Your task to perform on an android device: Is it going to rain tomorrow? Image 0: 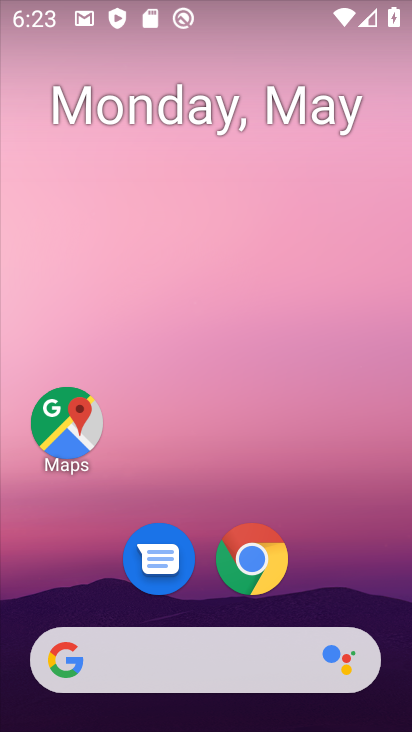
Step 0: drag from (397, 632) to (305, 46)
Your task to perform on an android device: Is it going to rain tomorrow? Image 1: 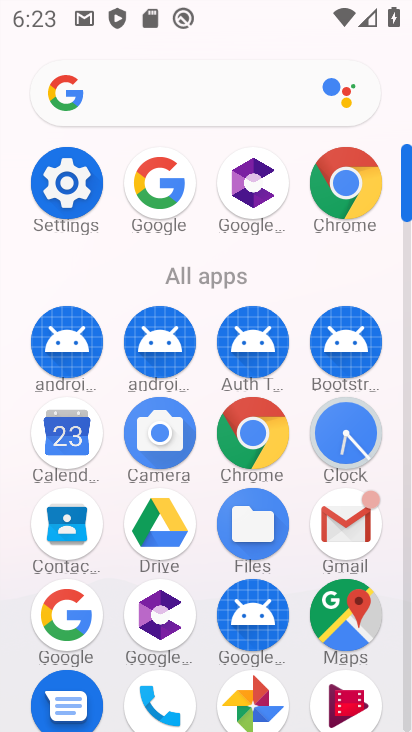
Step 1: click (165, 202)
Your task to perform on an android device: Is it going to rain tomorrow? Image 2: 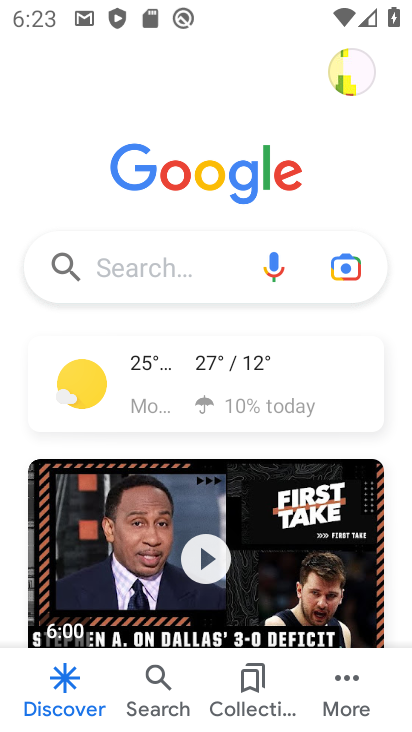
Step 2: click (140, 269)
Your task to perform on an android device: Is it going to rain tomorrow? Image 3: 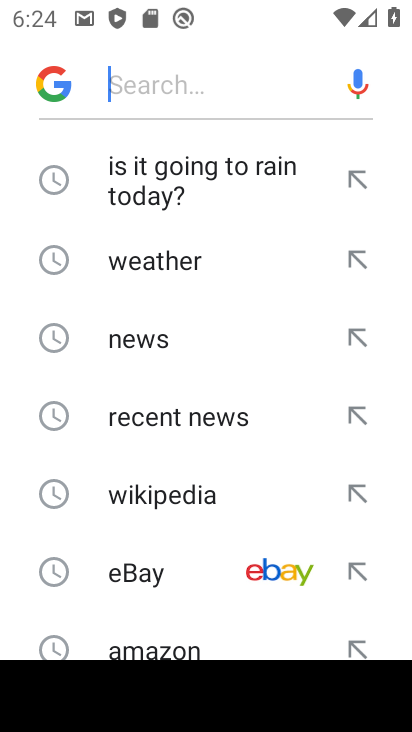
Step 3: drag from (108, 574) to (186, 225)
Your task to perform on an android device: Is it going to rain tomorrow? Image 4: 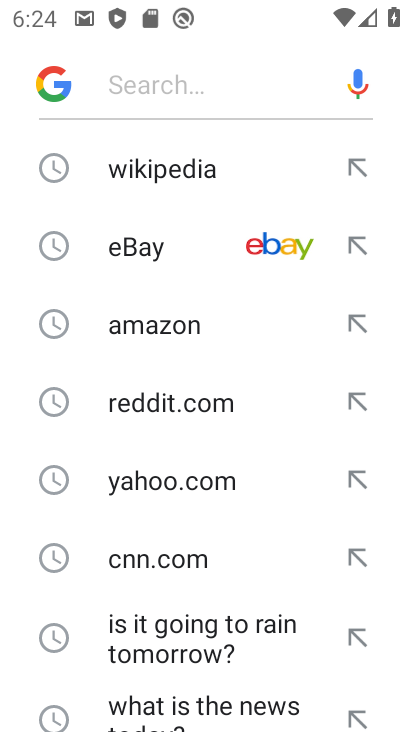
Step 4: click (185, 630)
Your task to perform on an android device: Is it going to rain tomorrow? Image 5: 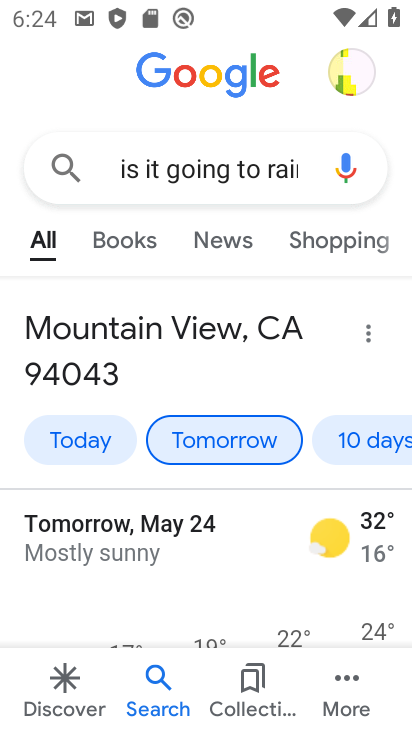
Step 5: task complete